Your task to perform on an android device: turn on improve location accuracy Image 0: 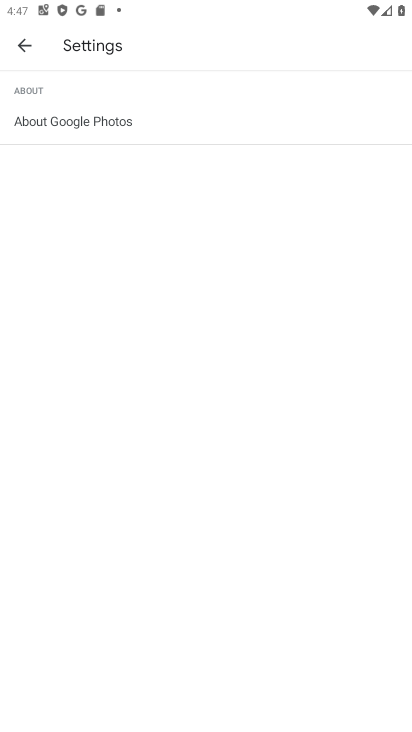
Step 0: press home button
Your task to perform on an android device: turn on improve location accuracy Image 1: 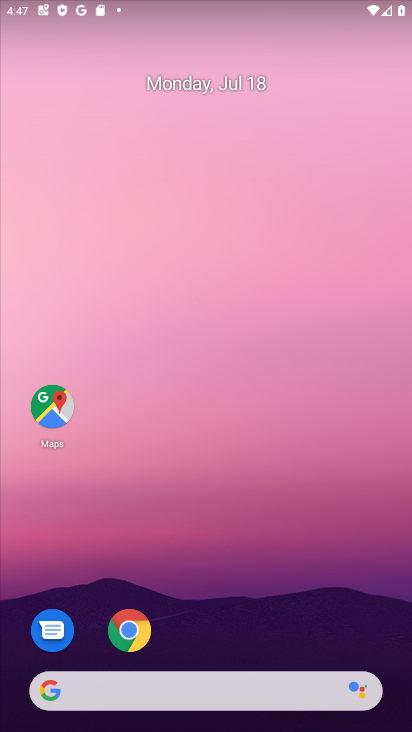
Step 1: drag from (210, 646) to (260, 78)
Your task to perform on an android device: turn on improve location accuracy Image 2: 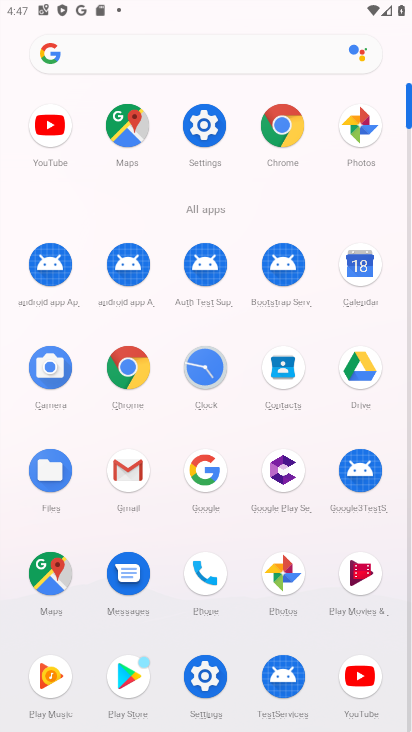
Step 2: click (198, 120)
Your task to perform on an android device: turn on improve location accuracy Image 3: 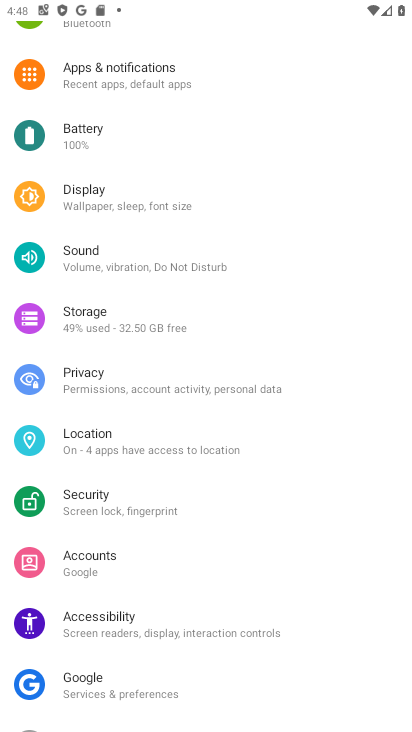
Step 3: click (114, 431)
Your task to perform on an android device: turn on improve location accuracy Image 4: 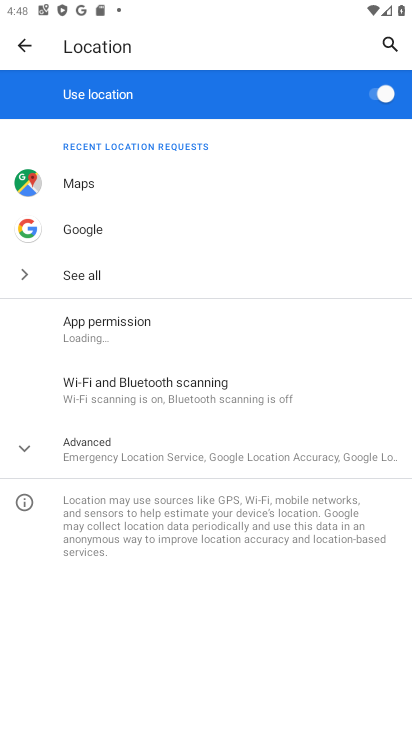
Step 4: click (29, 440)
Your task to perform on an android device: turn on improve location accuracy Image 5: 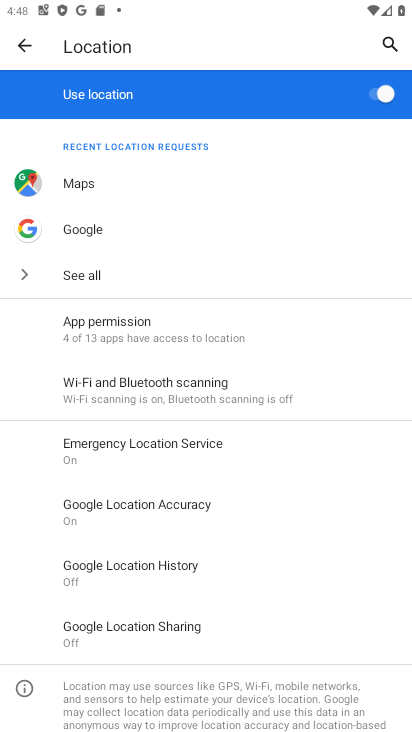
Step 5: click (187, 509)
Your task to perform on an android device: turn on improve location accuracy Image 6: 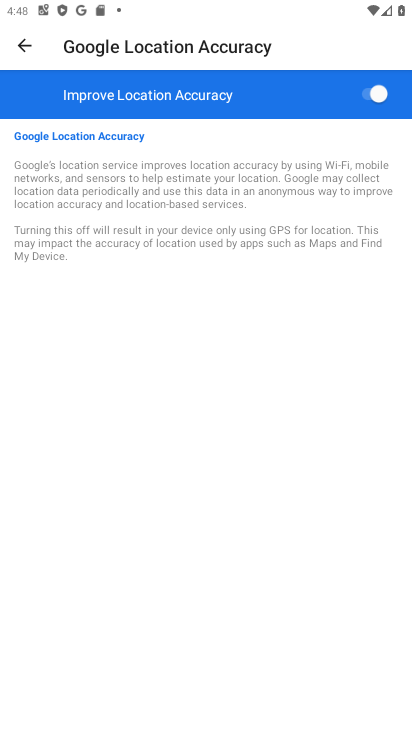
Step 6: task complete